Your task to perform on an android device: Open CNN.com Image 0: 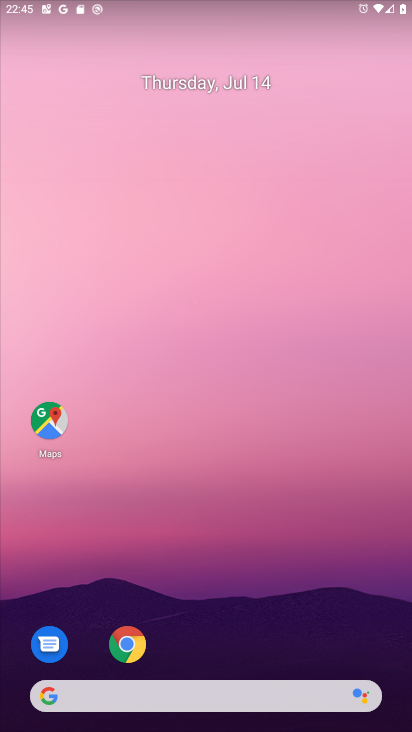
Step 0: click (146, 694)
Your task to perform on an android device: Open CNN.com Image 1: 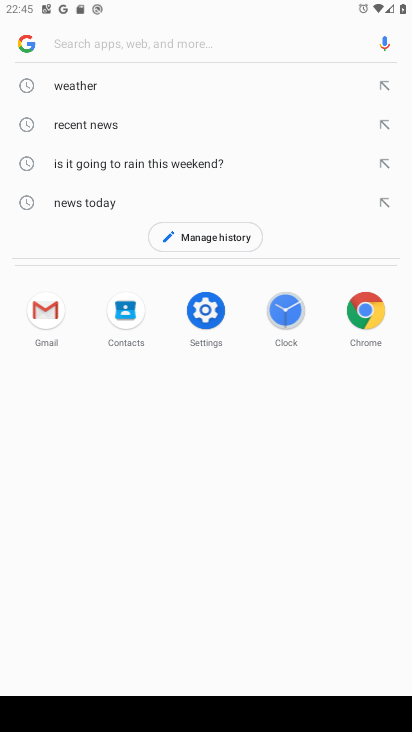
Step 1: type "cnn.com"
Your task to perform on an android device: Open CNN.com Image 2: 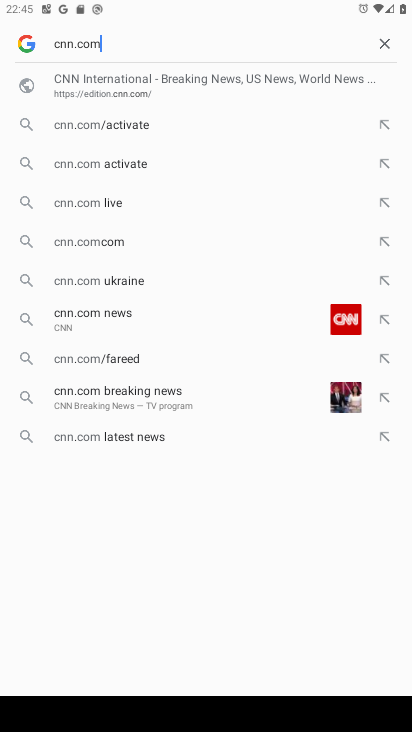
Step 2: click (136, 95)
Your task to perform on an android device: Open CNN.com Image 3: 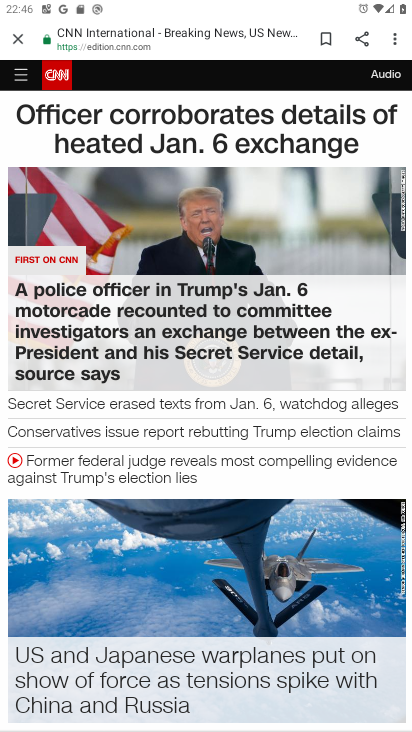
Step 3: task complete